Your task to perform on an android device: Open Google Chrome Image 0: 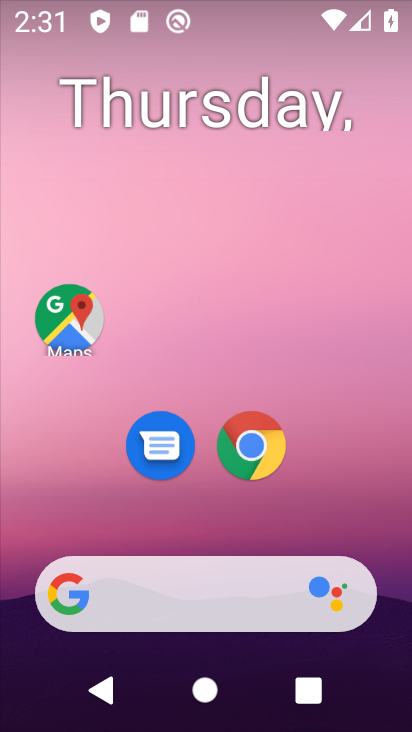
Step 0: click (256, 440)
Your task to perform on an android device: Open Google Chrome Image 1: 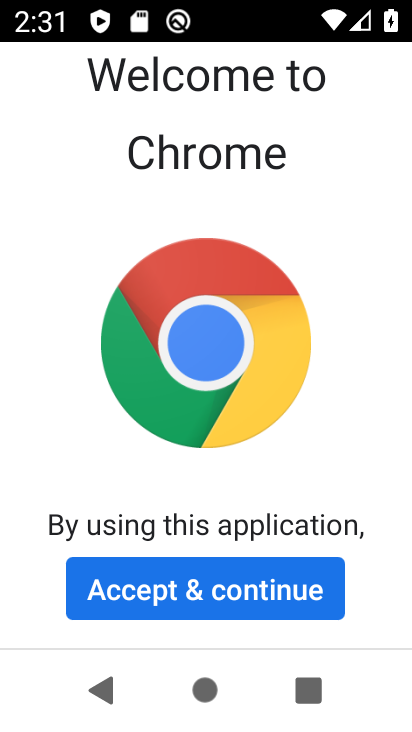
Step 1: click (203, 587)
Your task to perform on an android device: Open Google Chrome Image 2: 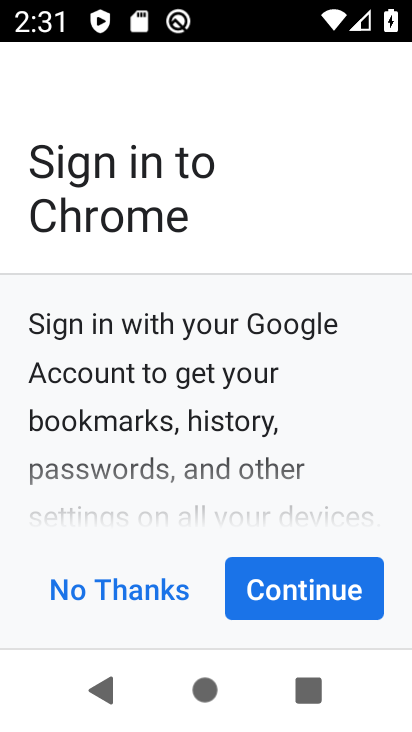
Step 2: click (277, 595)
Your task to perform on an android device: Open Google Chrome Image 3: 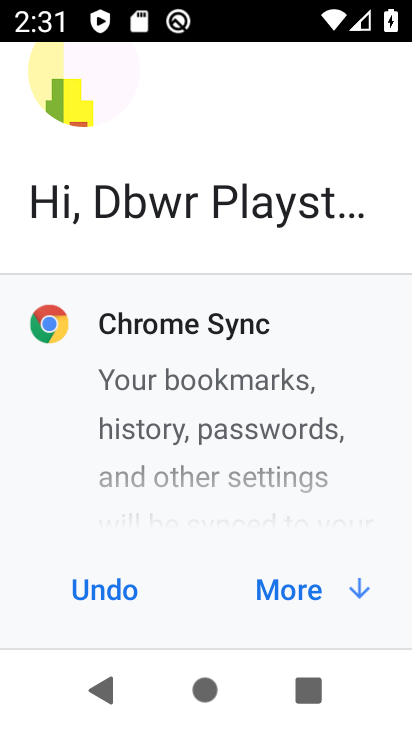
Step 3: click (280, 591)
Your task to perform on an android device: Open Google Chrome Image 4: 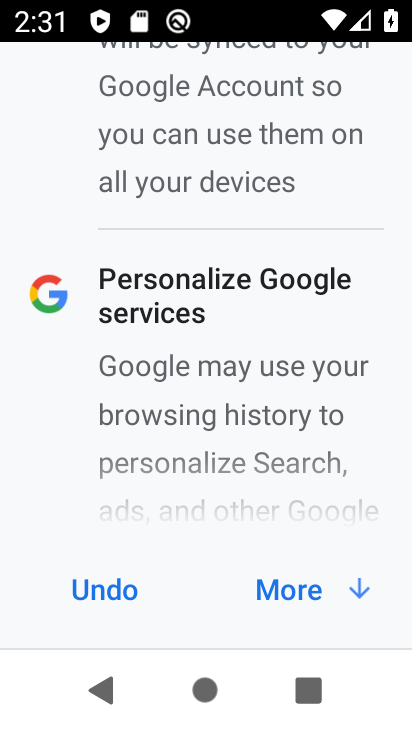
Step 4: click (280, 591)
Your task to perform on an android device: Open Google Chrome Image 5: 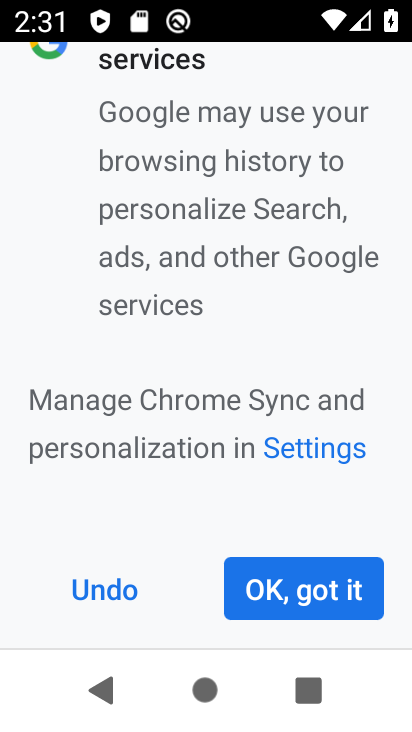
Step 5: click (280, 591)
Your task to perform on an android device: Open Google Chrome Image 6: 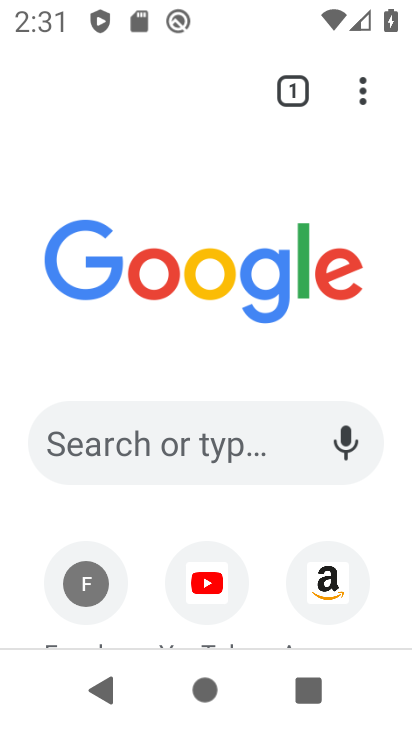
Step 6: task complete